Your task to perform on an android device: turn off notifications in google photos Image 0: 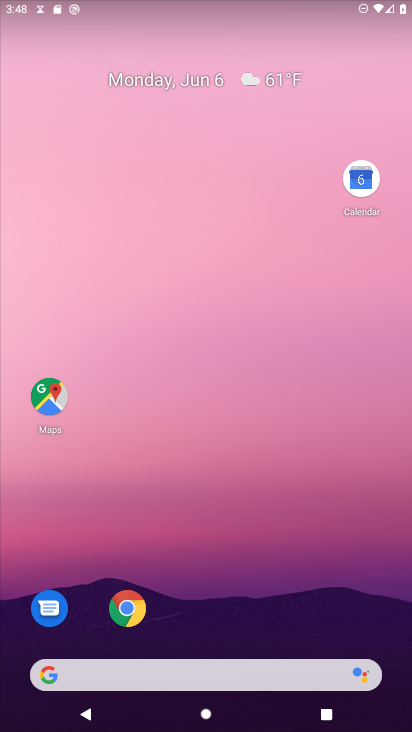
Step 0: drag from (221, 622) to (264, 10)
Your task to perform on an android device: turn off notifications in google photos Image 1: 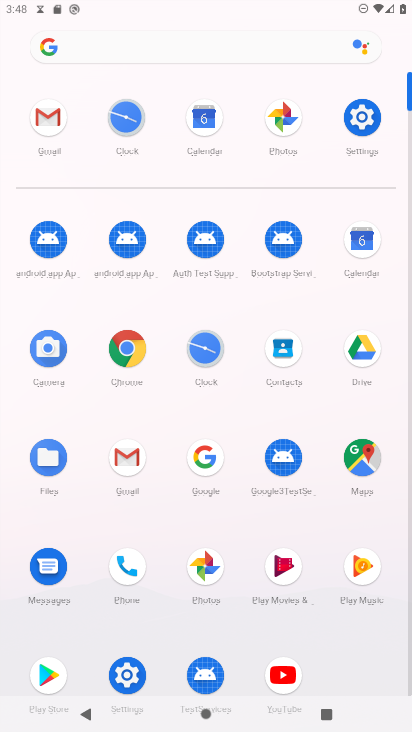
Step 1: click (212, 558)
Your task to perform on an android device: turn off notifications in google photos Image 2: 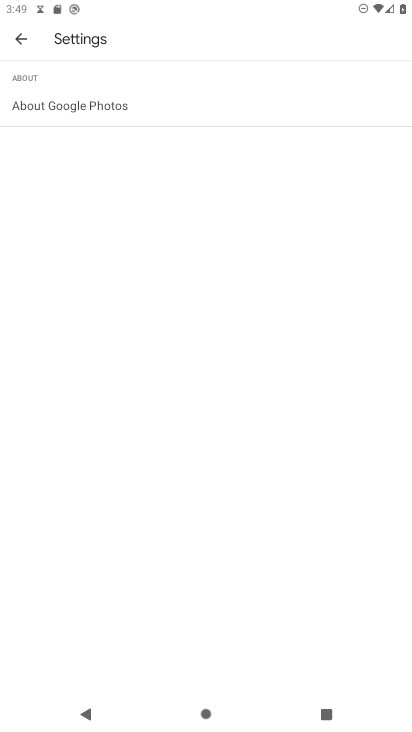
Step 2: click (23, 36)
Your task to perform on an android device: turn off notifications in google photos Image 3: 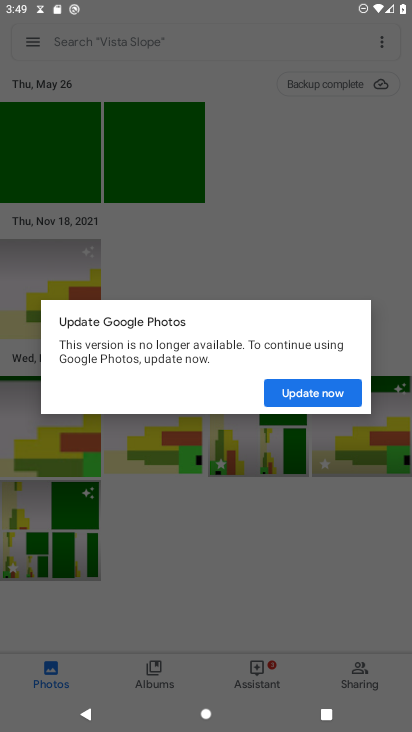
Step 3: click (271, 393)
Your task to perform on an android device: turn off notifications in google photos Image 4: 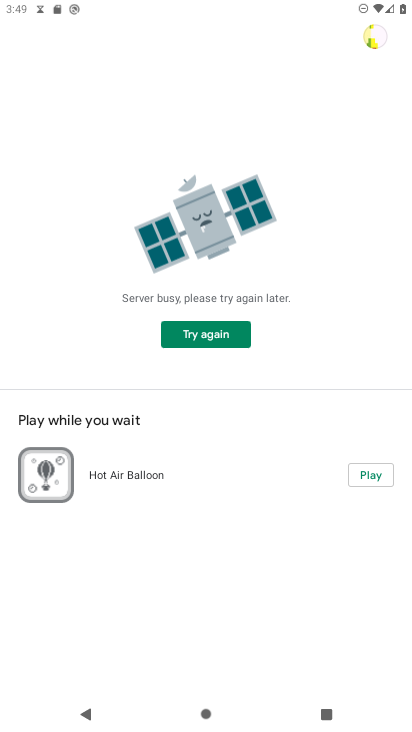
Step 4: click (211, 341)
Your task to perform on an android device: turn off notifications in google photos Image 5: 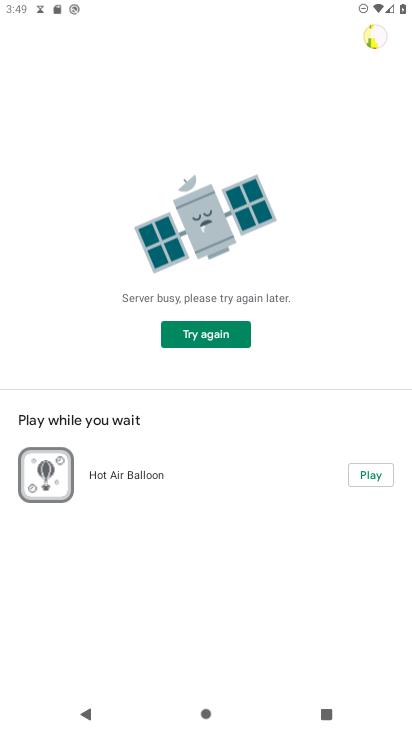
Step 5: task complete